Your task to perform on an android device: Search for macbook pro 13 inch on newegg, select the first entry, and add it to the cart. Image 0: 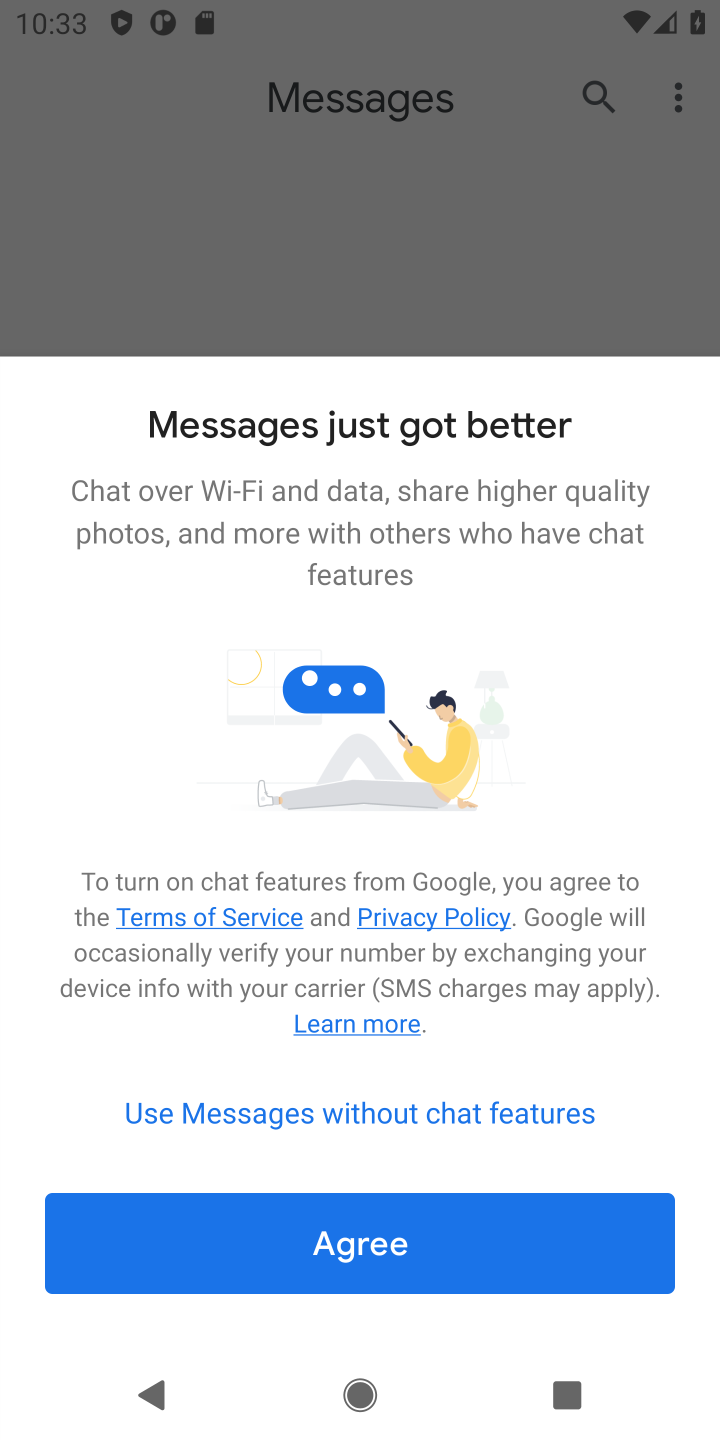
Step 0: press home button
Your task to perform on an android device: Search for macbook pro 13 inch on newegg, select the first entry, and add it to the cart. Image 1: 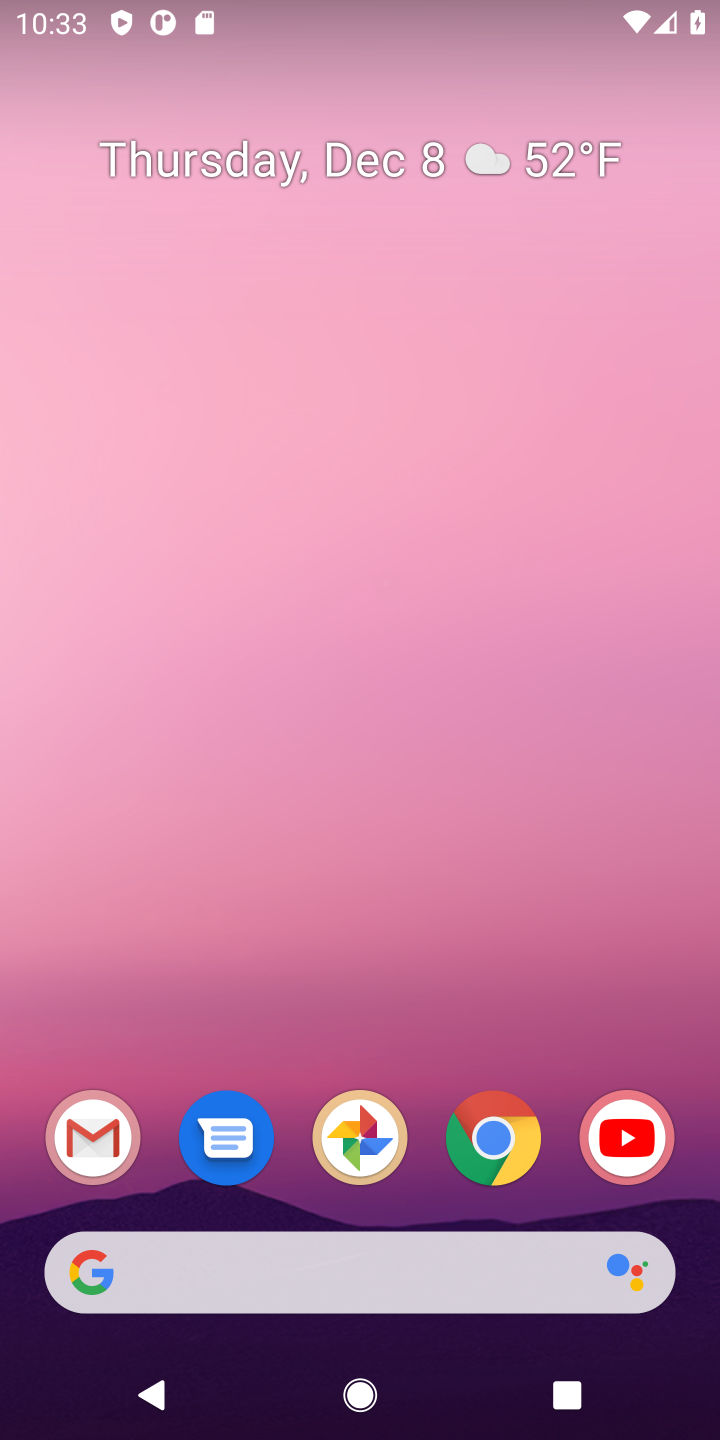
Step 1: click (515, 1130)
Your task to perform on an android device: Search for macbook pro 13 inch on newegg, select the first entry, and add it to the cart. Image 2: 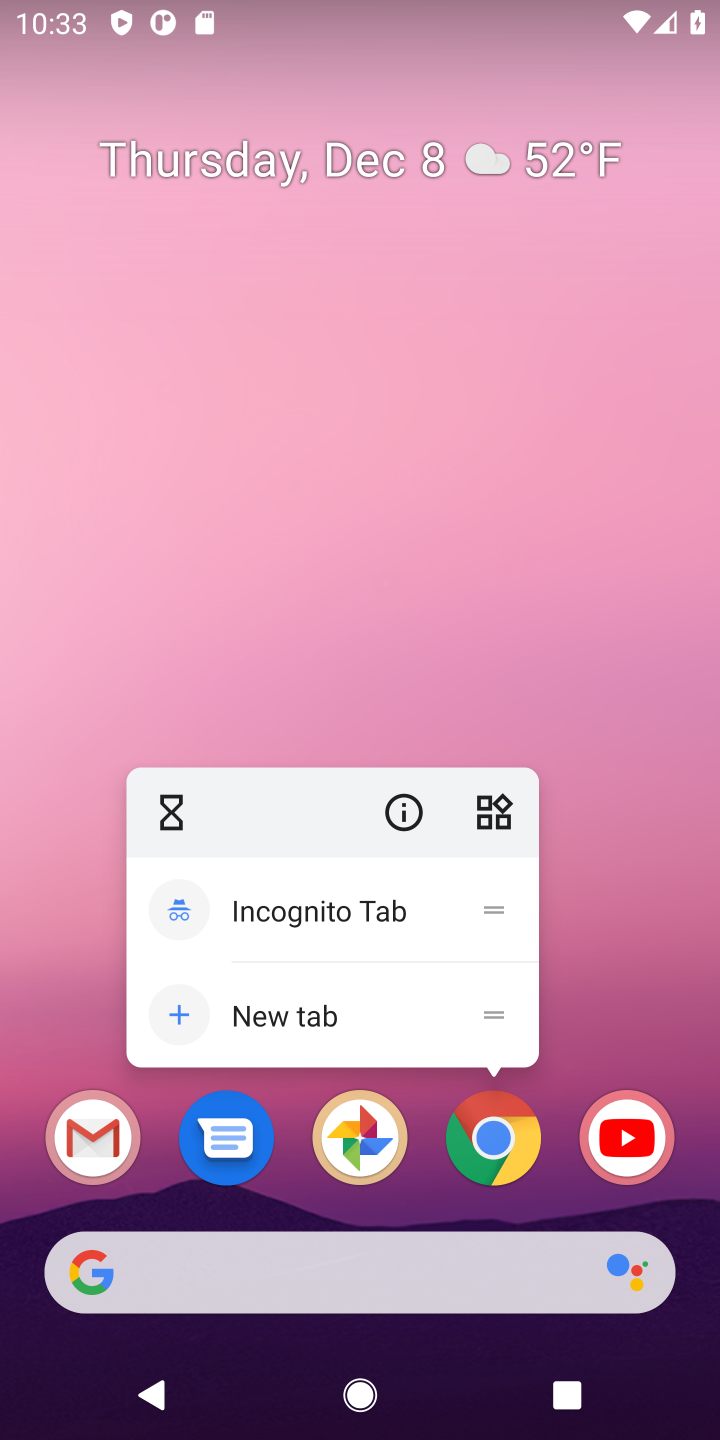
Step 2: click (507, 1139)
Your task to perform on an android device: Search for macbook pro 13 inch on newegg, select the first entry, and add it to the cart. Image 3: 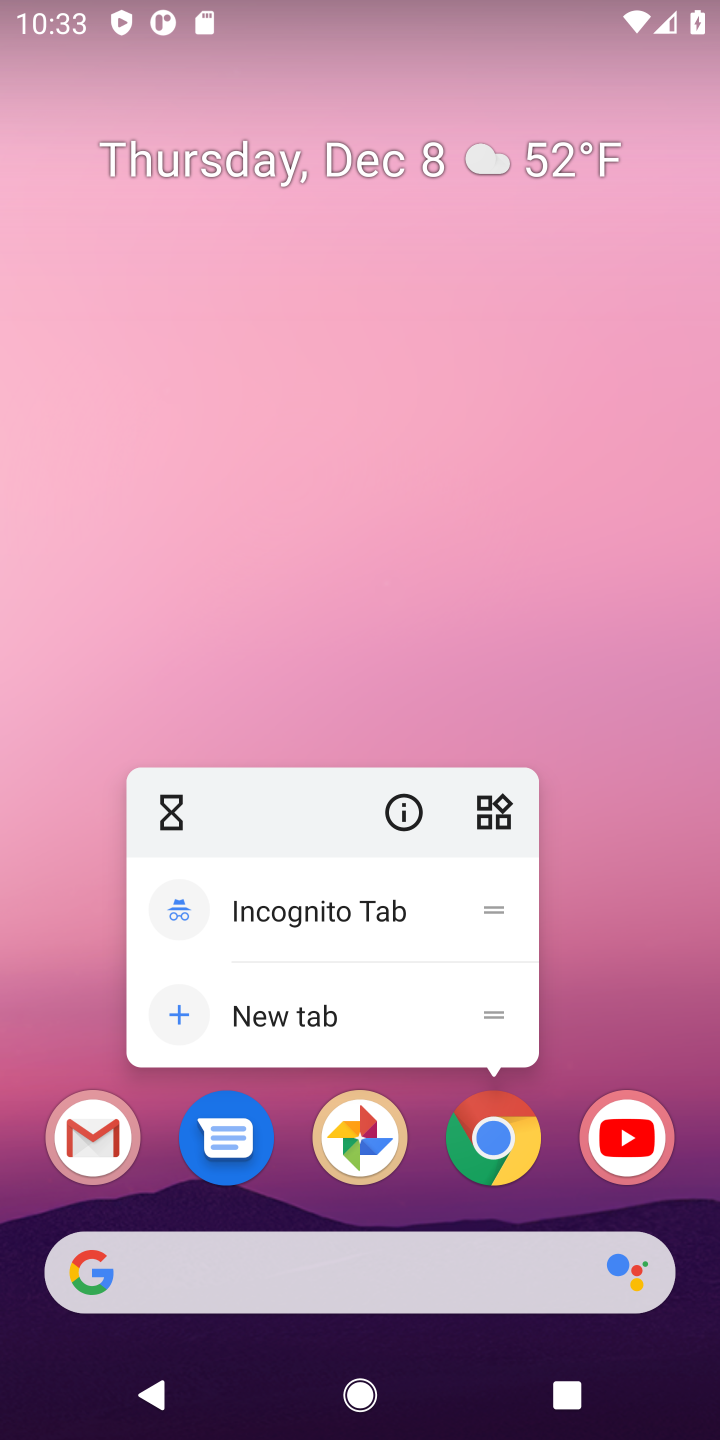
Step 3: click (505, 1132)
Your task to perform on an android device: Search for macbook pro 13 inch on newegg, select the first entry, and add it to the cart. Image 4: 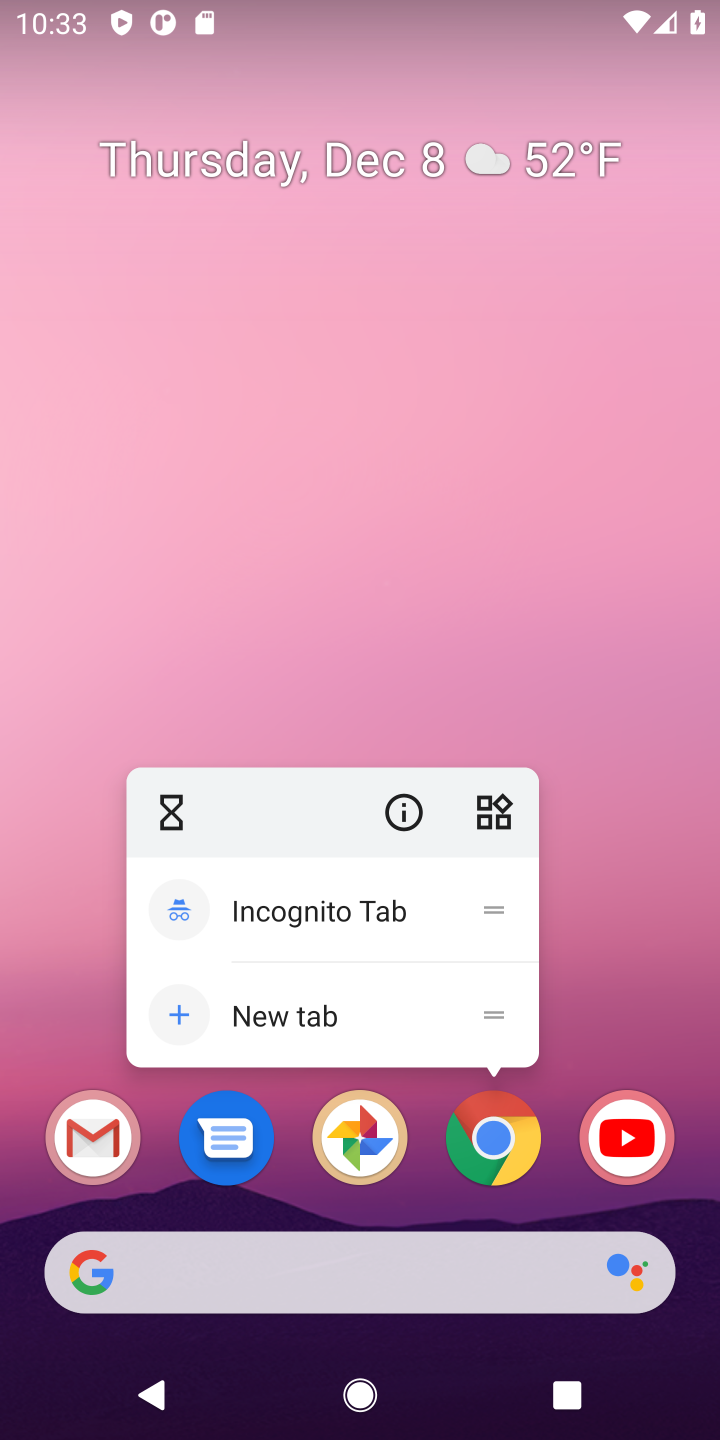
Step 4: click (621, 965)
Your task to perform on an android device: Search for macbook pro 13 inch on newegg, select the first entry, and add it to the cart. Image 5: 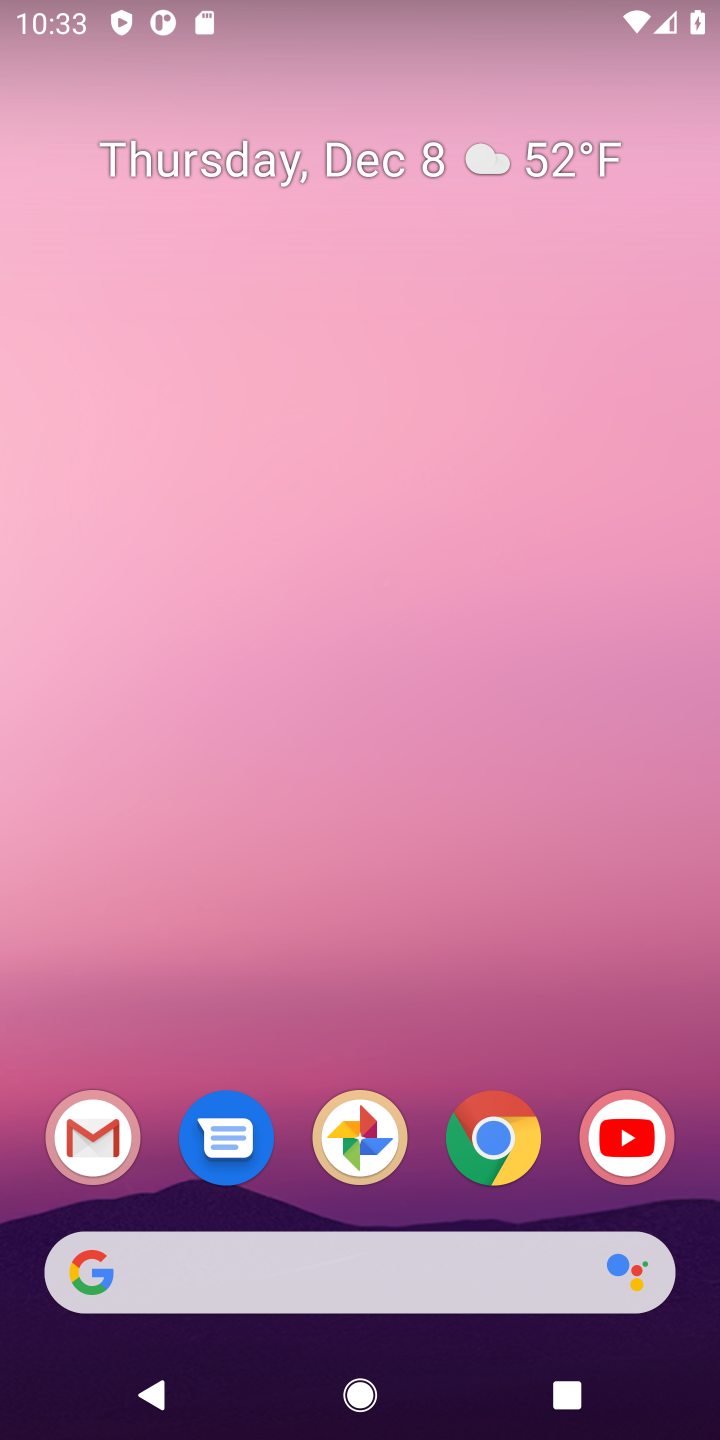
Step 5: click (514, 1142)
Your task to perform on an android device: Search for macbook pro 13 inch on newegg, select the first entry, and add it to the cart. Image 6: 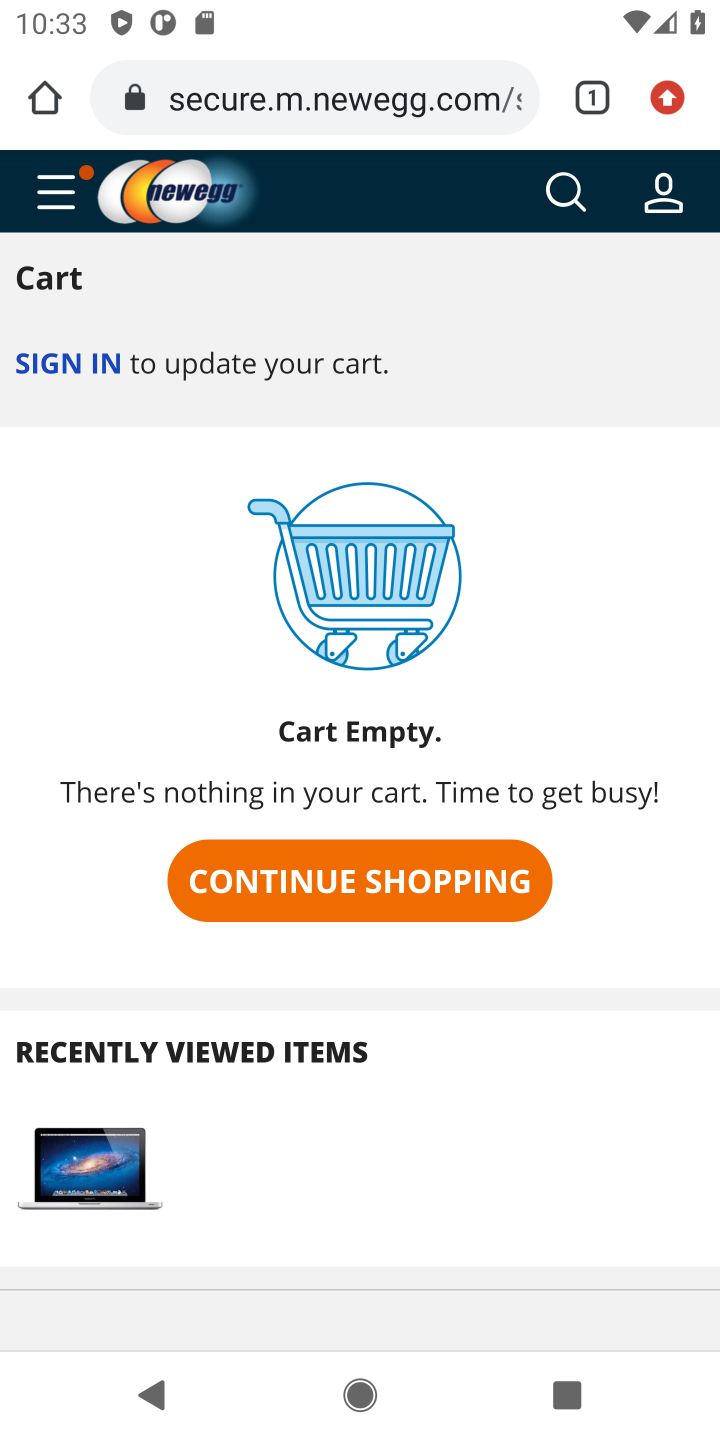
Step 6: click (383, 114)
Your task to perform on an android device: Search for macbook pro 13 inch on newegg, select the first entry, and add it to the cart. Image 7: 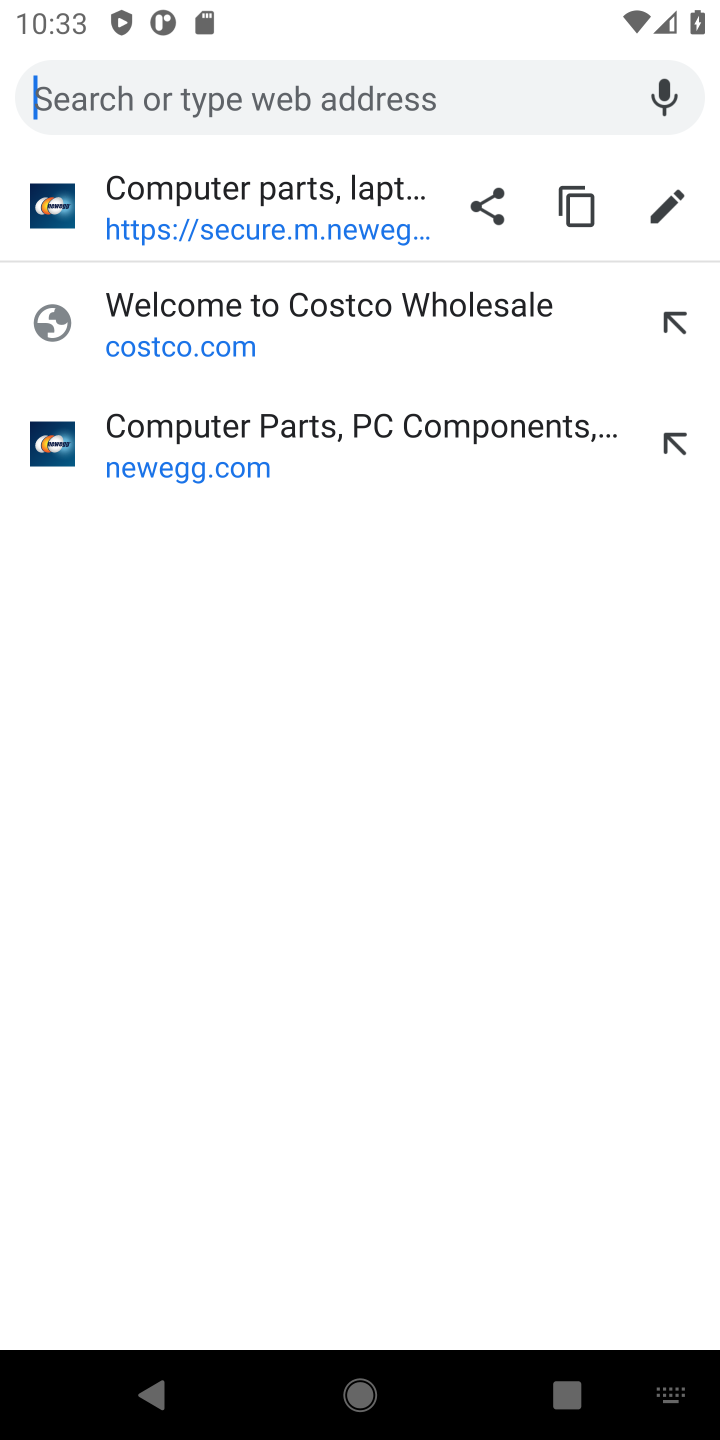
Step 7: click (228, 457)
Your task to perform on an android device: Search for macbook pro 13 inch on newegg, select the first entry, and add it to the cart. Image 8: 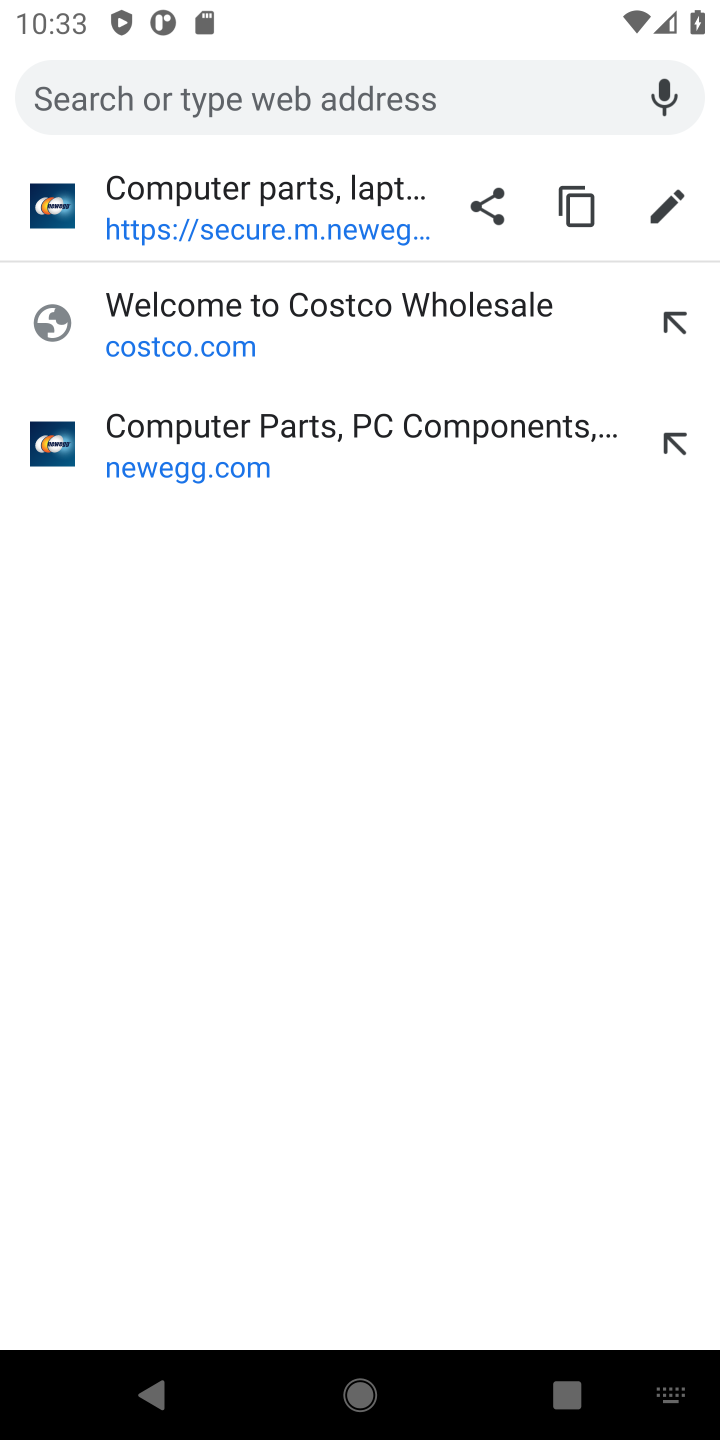
Step 8: click (232, 449)
Your task to perform on an android device: Search for macbook pro 13 inch on newegg, select the first entry, and add it to the cart. Image 9: 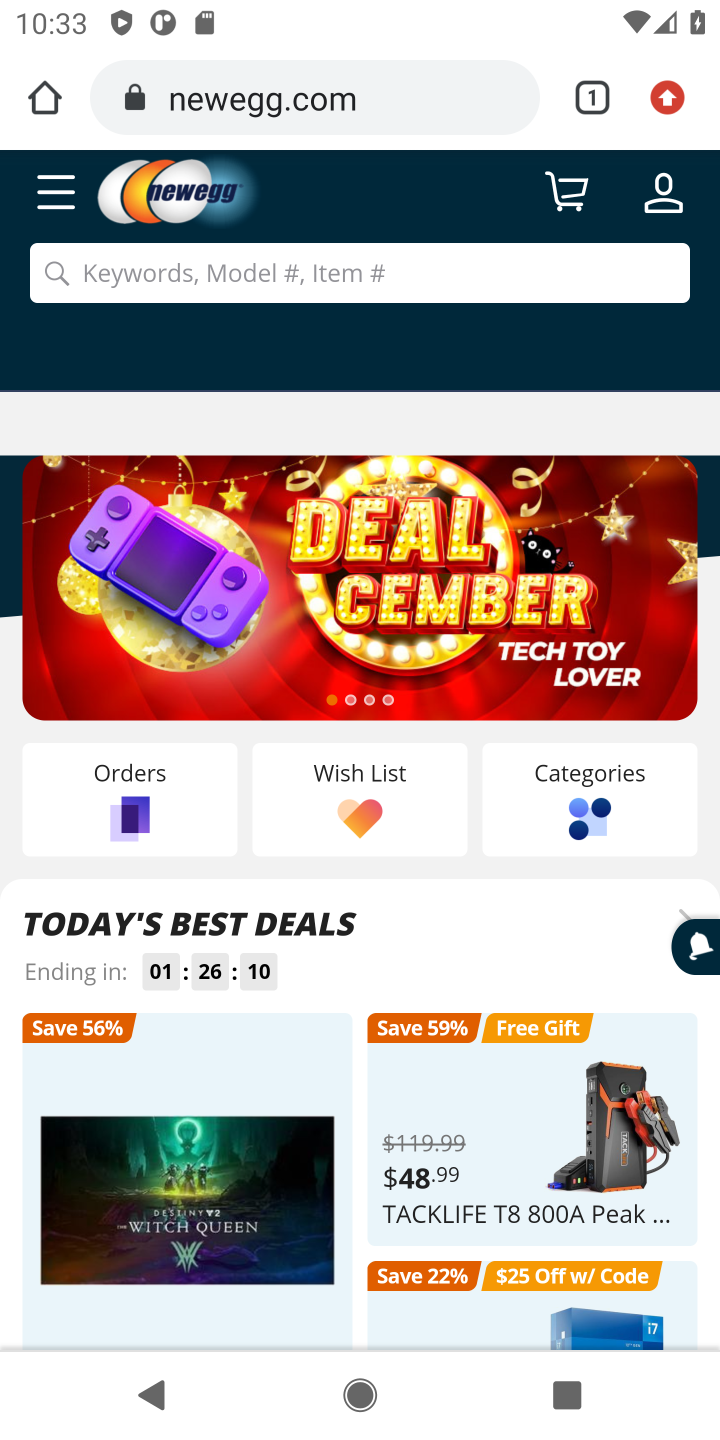
Step 9: click (216, 281)
Your task to perform on an android device: Search for macbook pro 13 inch on newegg, select the first entry, and add it to the cart. Image 10: 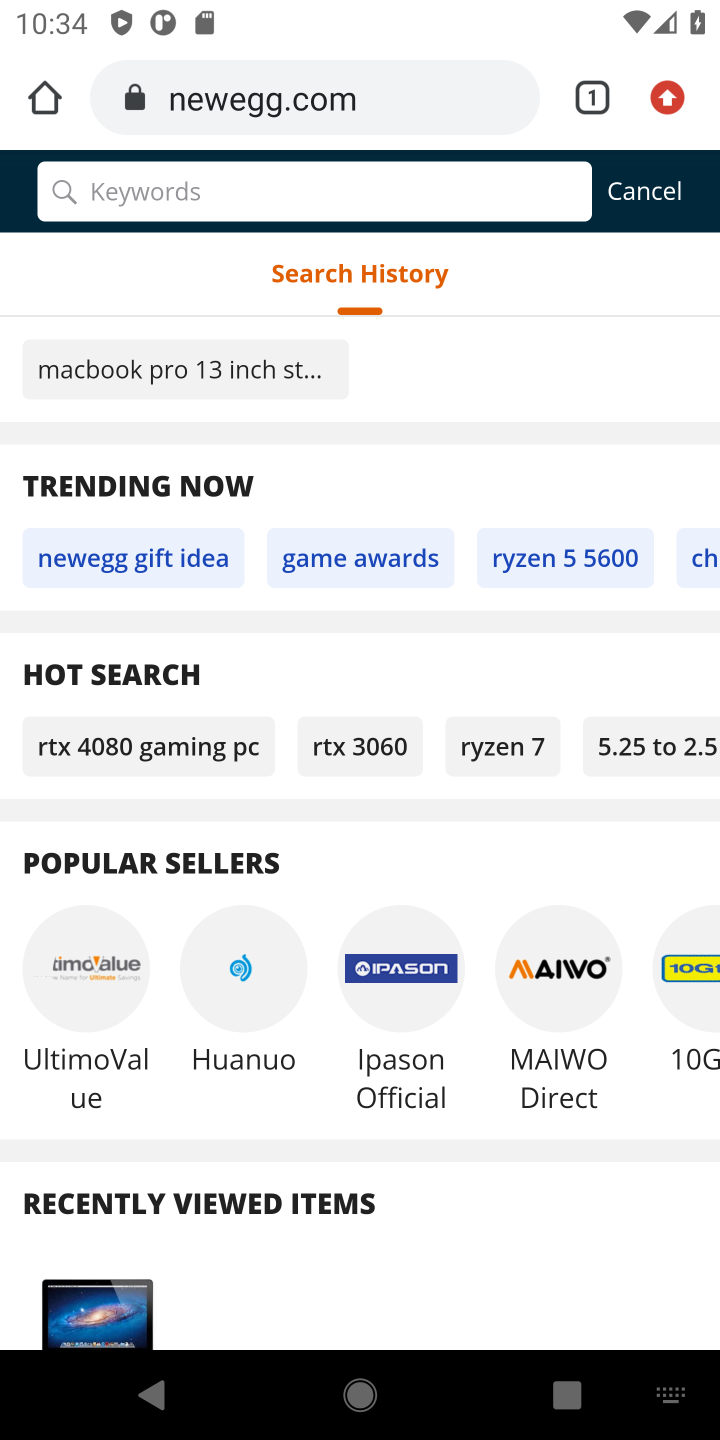
Step 10: type "macbook pro 13 inch"
Your task to perform on an android device: Search for macbook pro 13 inch on newegg, select the first entry, and add it to the cart. Image 11: 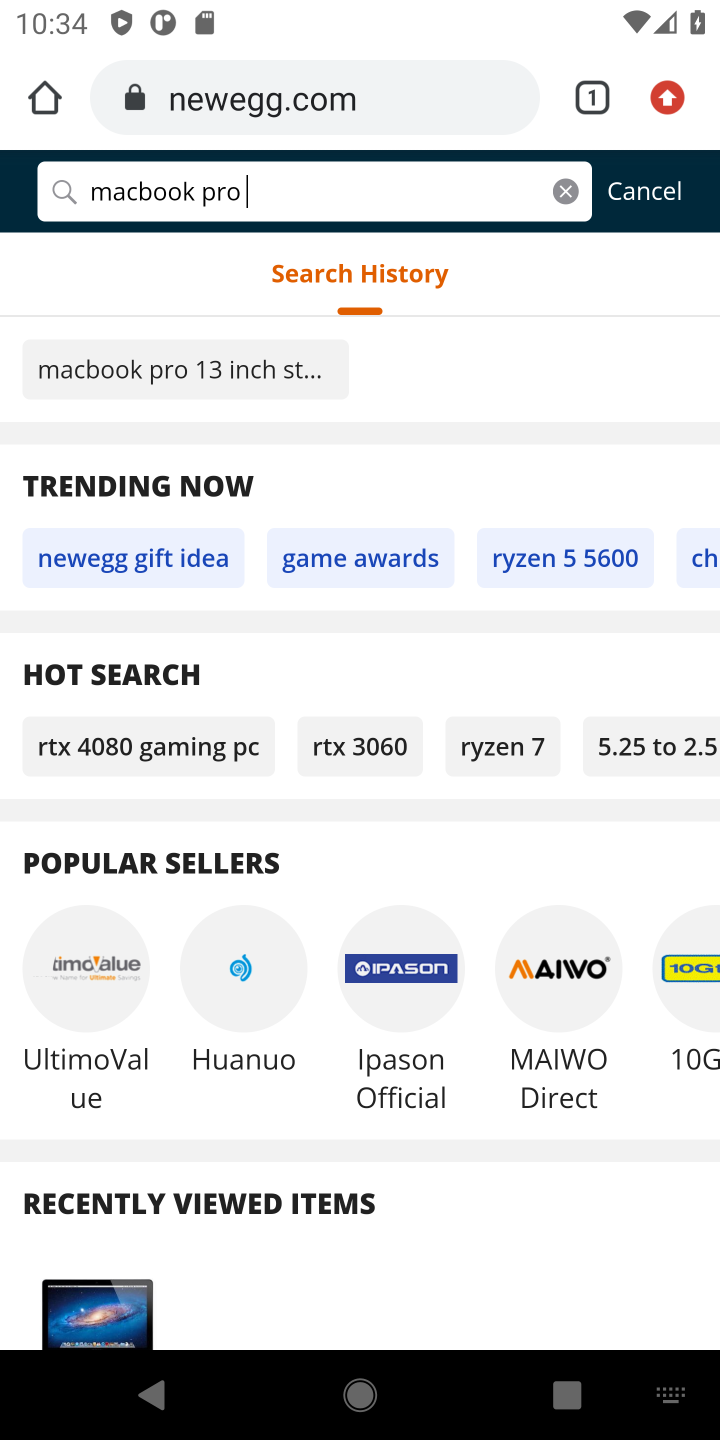
Step 11: press enter
Your task to perform on an android device: Search for macbook pro 13 inch on newegg, select the first entry, and add it to the cart. Image 12: 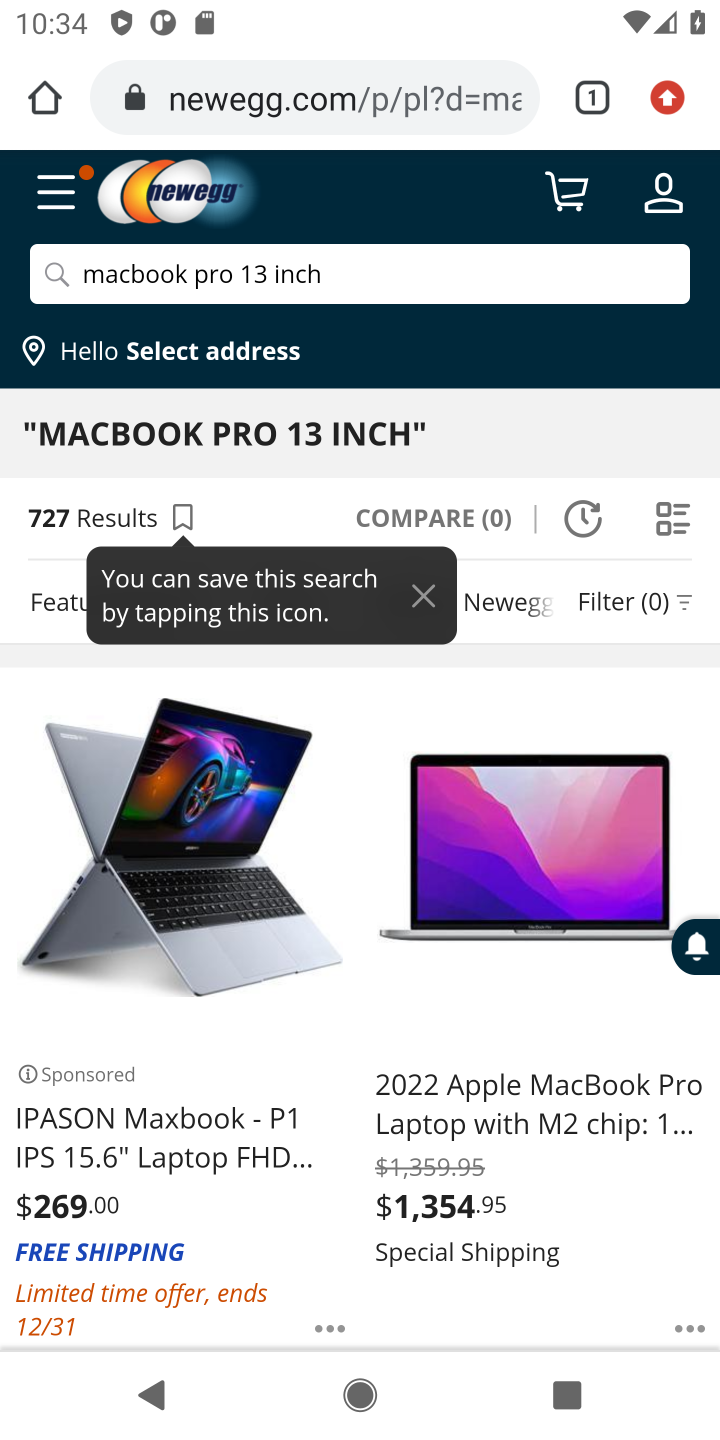
Step 12: drag from (616, 1226) to (337, 1082)
Your task to perform on an android device: Search for macbook pro 13 inch on newegg, select the first entry, and add it to the cart. Image 13: 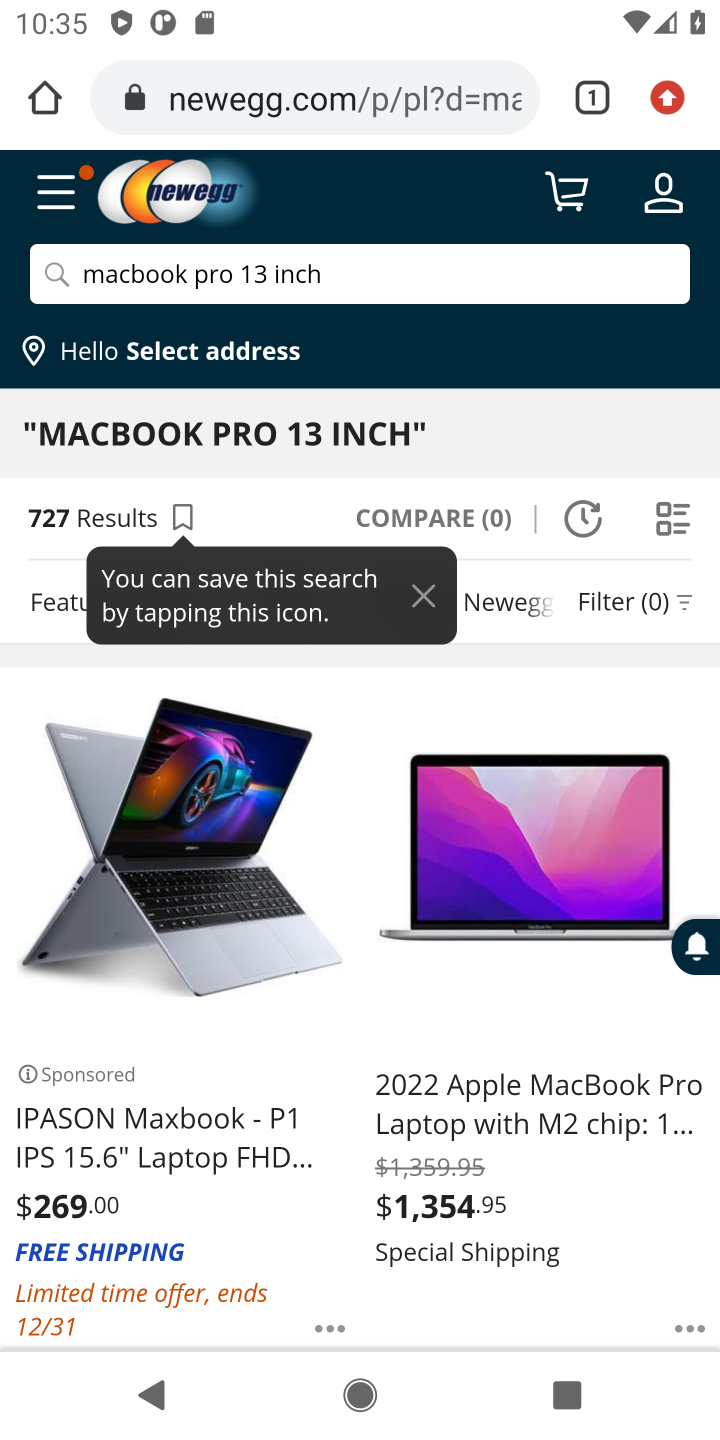
Step 13: drag from (609, 1177) to (712, 1182)
Your task to perform on an android device: Search for macbook pro 13 inch on newegg, select the first entry, and add it to the cart. Image 14: 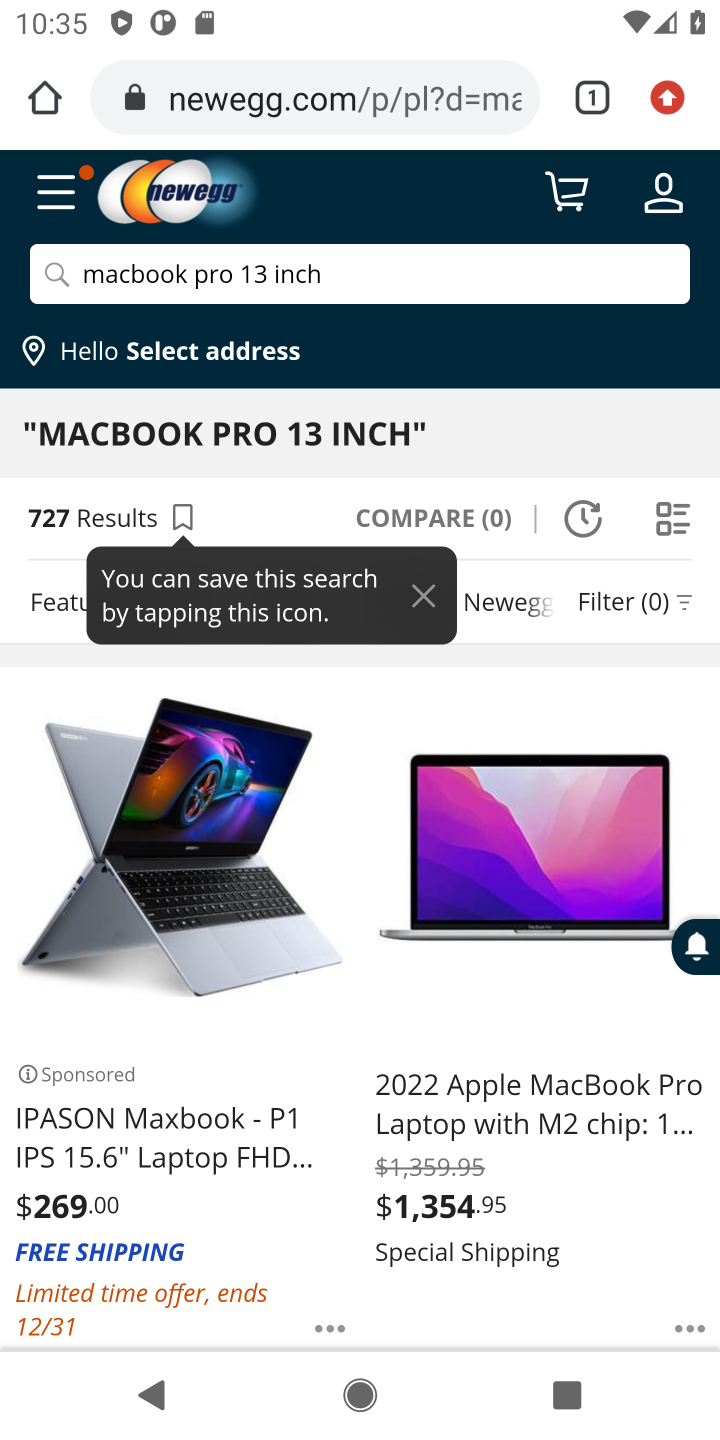
Step 14: click (545, 1087)
Your task to perform on an android device: Search for macbook pro 13 inch on newegg, select the first entry, and add it to the cart. Image 15: 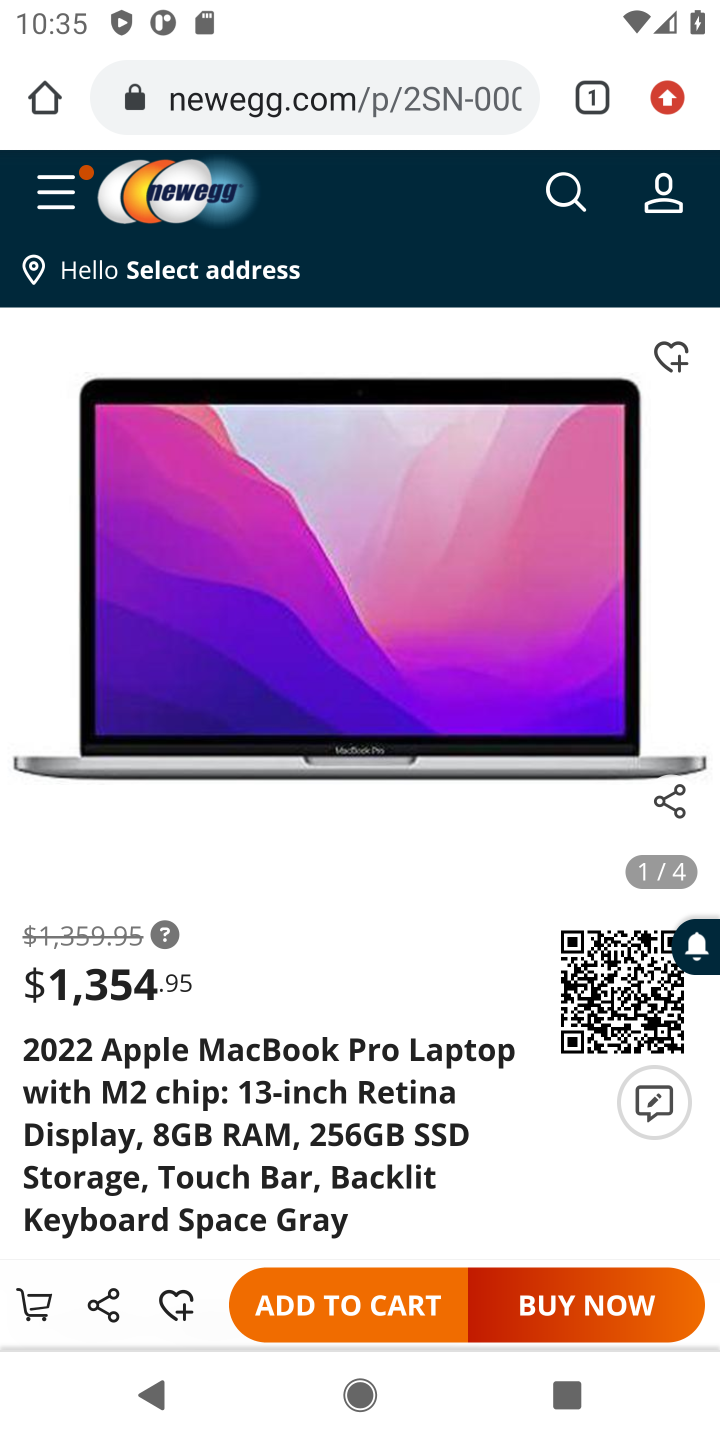
Step 15: click (391, 1306)
Your task to perform on an android device: Search for macbook pro 13 inch on newegg, select the first entry, and add it to the cart. Image 16: 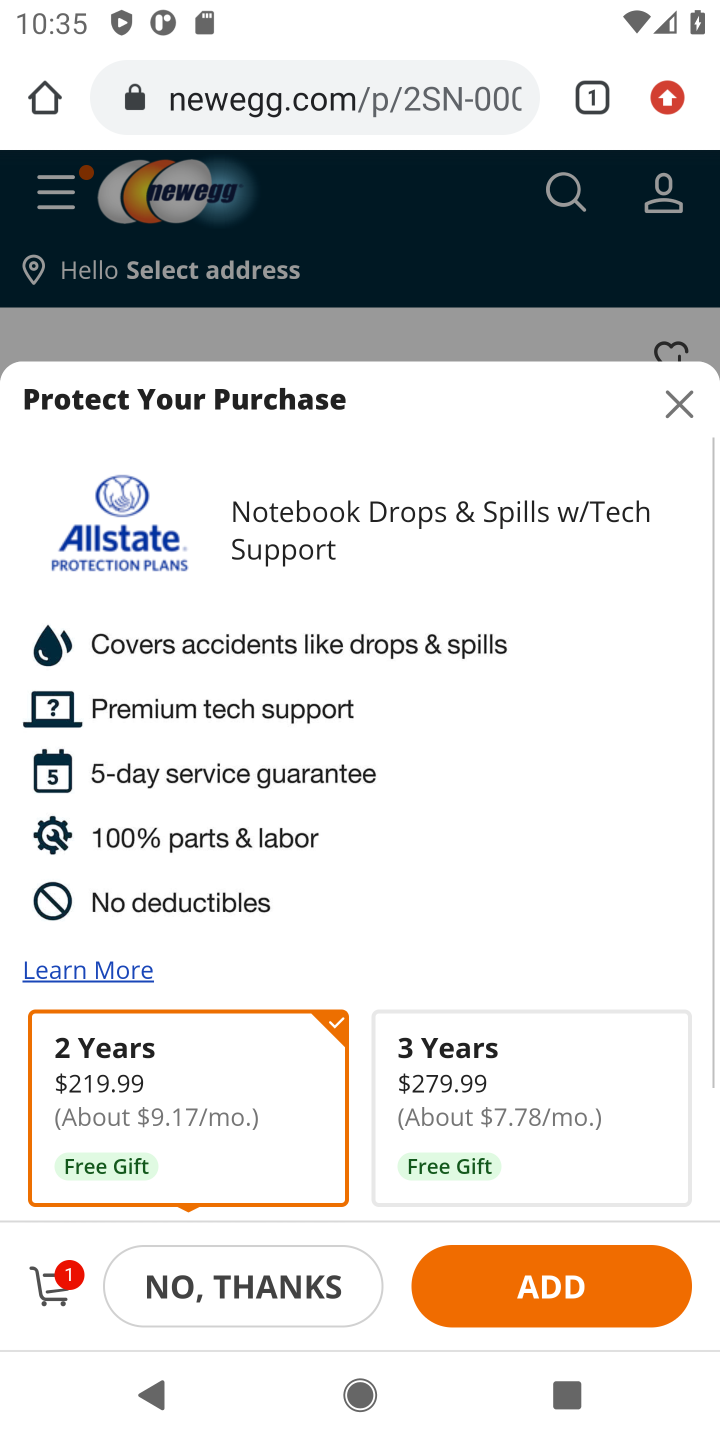
Step 16: click (517, 1318)
Your task to perform on an android device: Search for macbook pro 13 inch on newegg, select the first entry, and add it to the cart. Image 17: 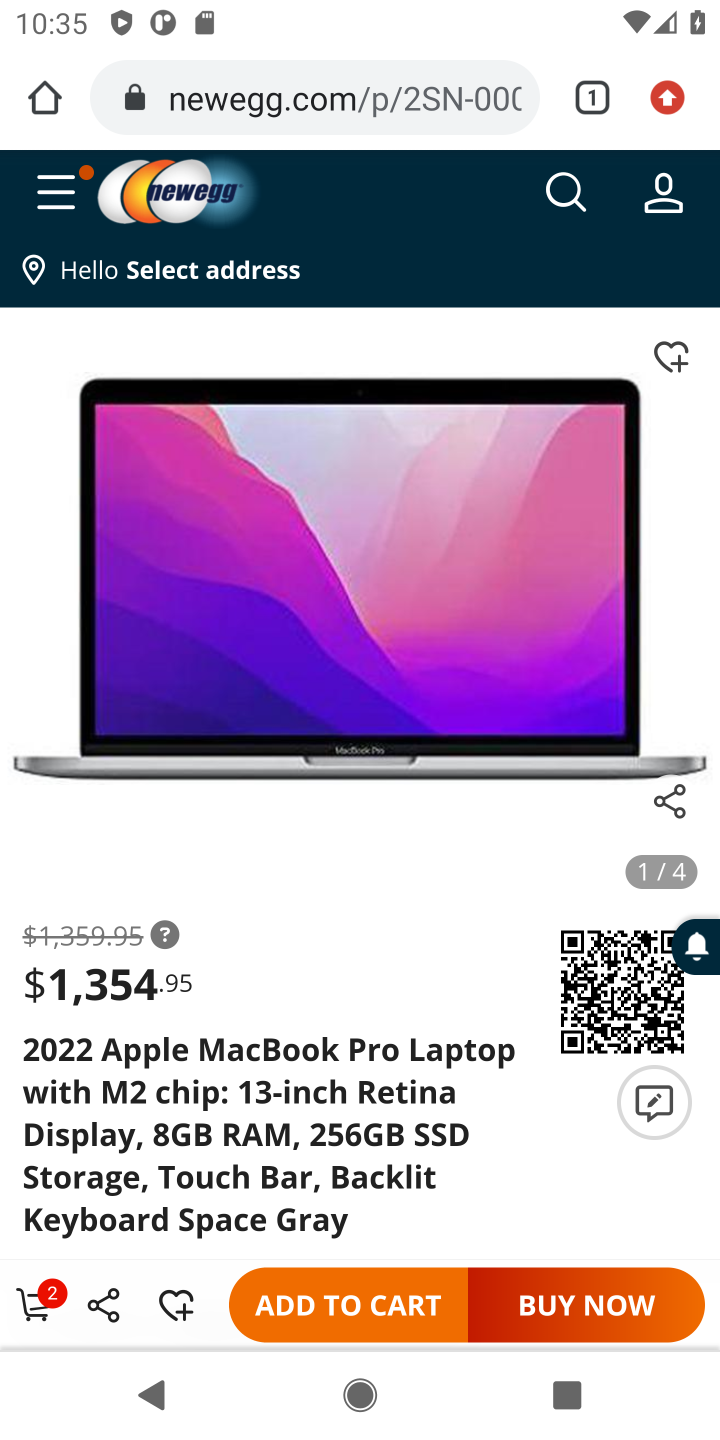
Step 17: task complete